Your task to perform on an android device: add a contact Image 0: 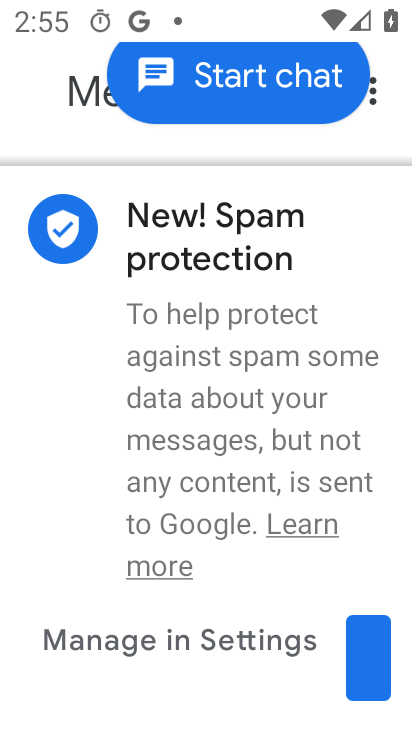
Step 0: press home button
Your task to perform on an android device: add a contact Image 1: 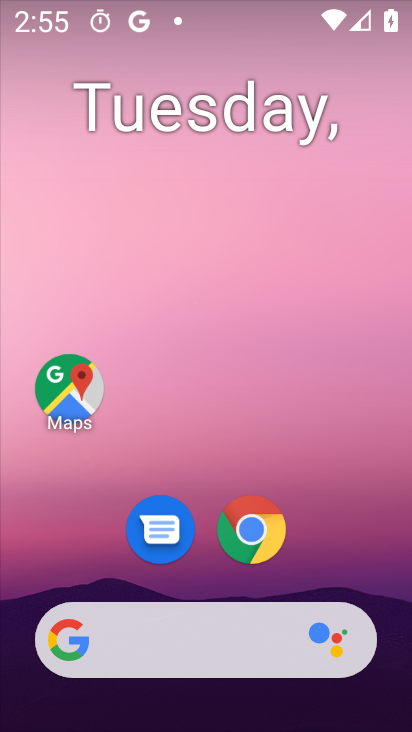
Step 1: drag from (129, 277) to (401, 277)
Your task to perform on an android device: add a contact Image 2: 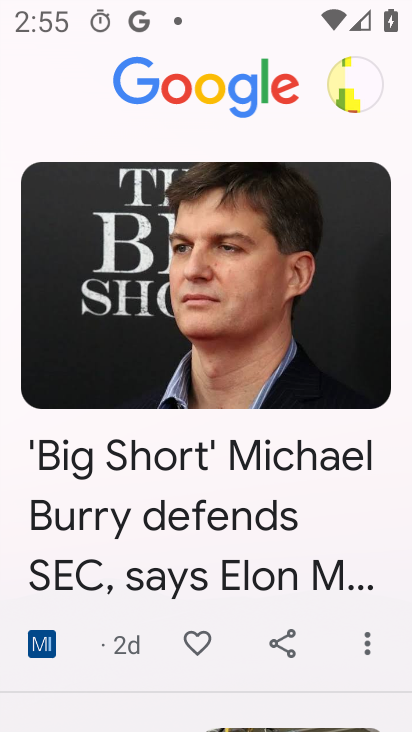
Step 2: press home button
Your task to perform on an android device: add a contact Image 3: 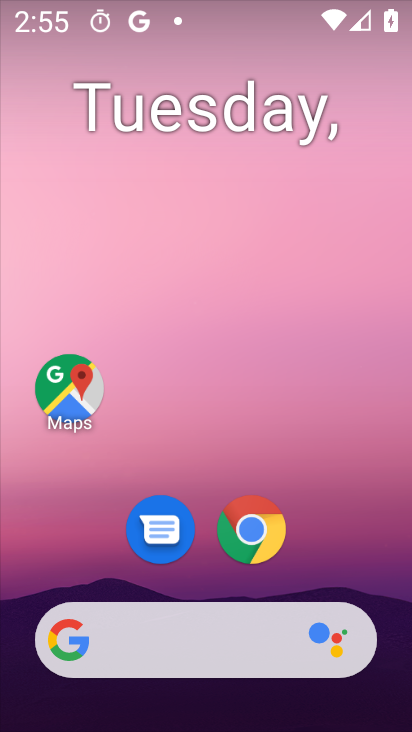
Step 3: click (371, 168)
Your task to perform on an android device: add a contact Image 4: 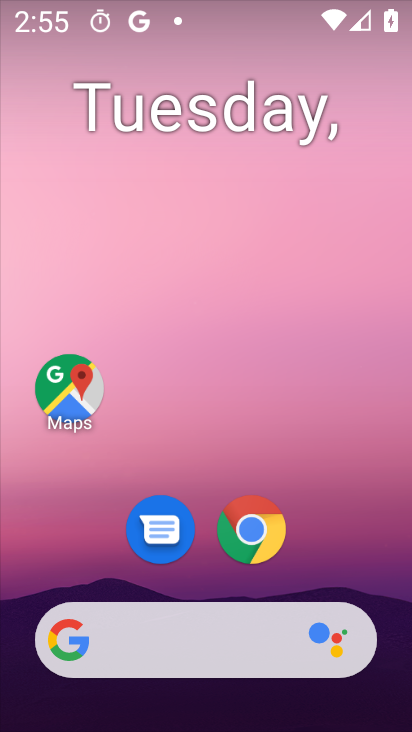
Step 4: drag from (353, 460) to (343, 206)
Your task to perform on an android device: add a contact Image 5: 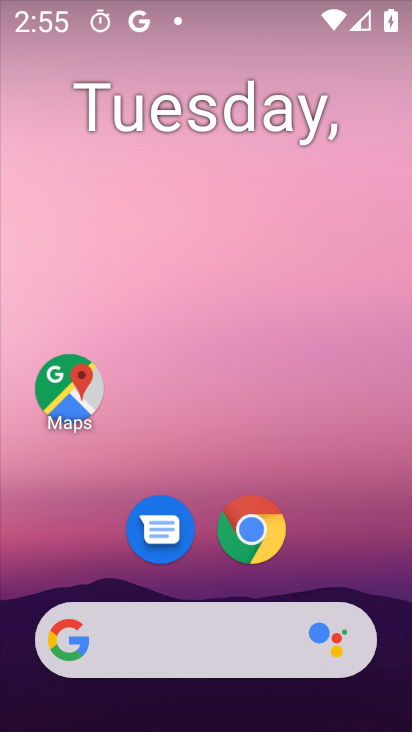
Step 5: drag from (379, 570) to (323, 76)
Your task to perform on an android device: add a contact Image 6: 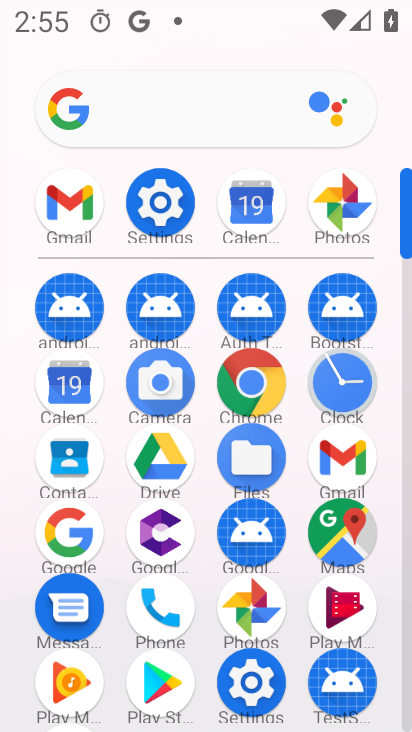
Step 6: drag from (198, 649) to (193, 291)
Your task to perform on an android device: add a contact Image 7: 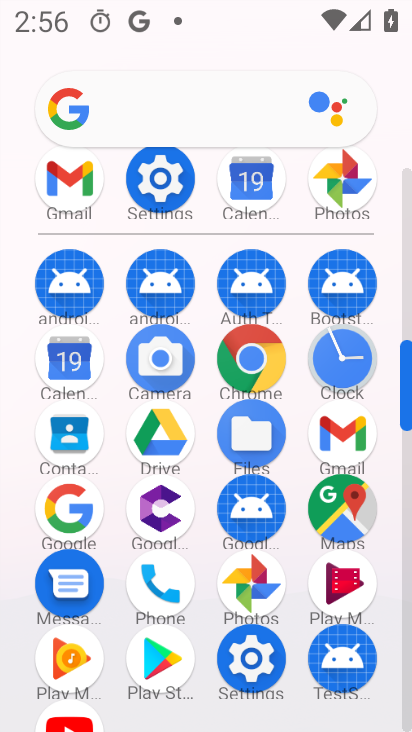
Step 7: click (61, 451)
Your task to perform on an android device: add a contact Image 8: 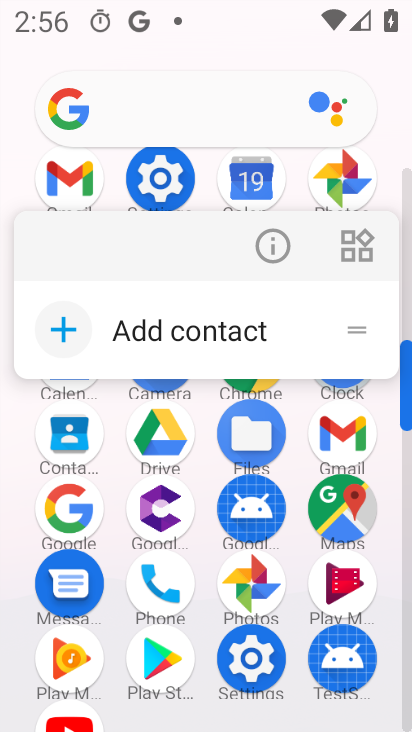
Step 8: click (60, 438)
Your task to perform on an android device: add a contact Image 9: 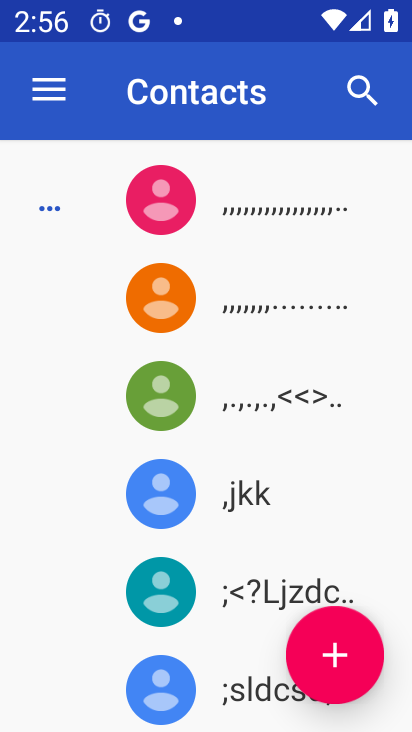
Step 9: click (314, 677)
Your task to perform on an android device: add a contact Image 10: 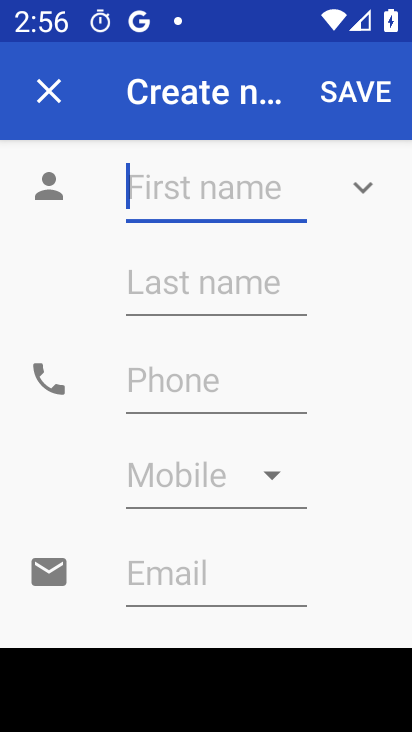
Step 10: type "fdfgdfdfgg"
Your task to perform on an android device: add a contact Image 11: 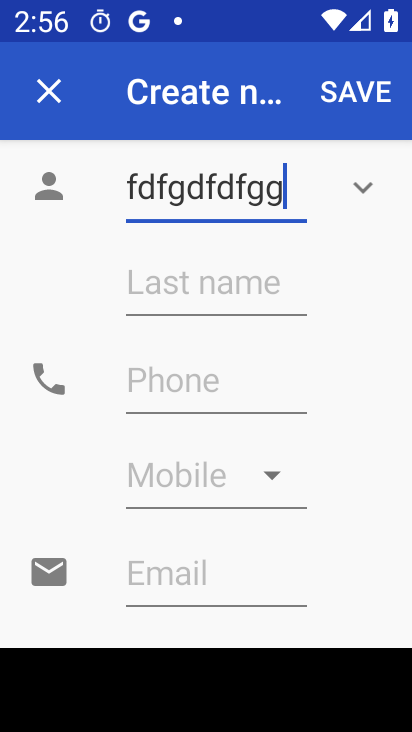
Step 11: click (202, 283)
Your task to perform on an android device: add a contact Image 12: 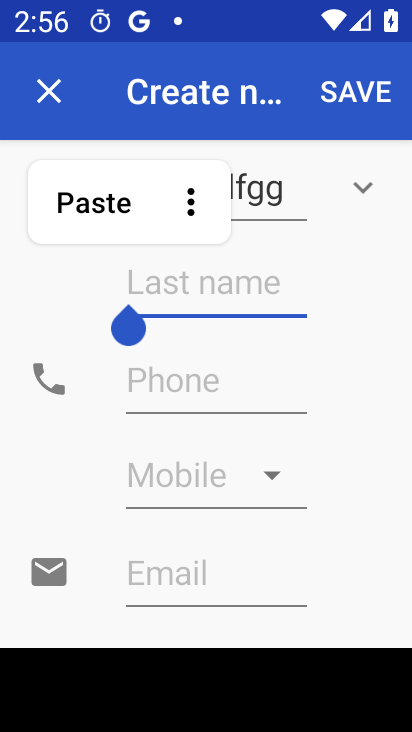
Step 12: type "dfhfhfgh"
Your task to perform on an android device: add a contact Image 13: 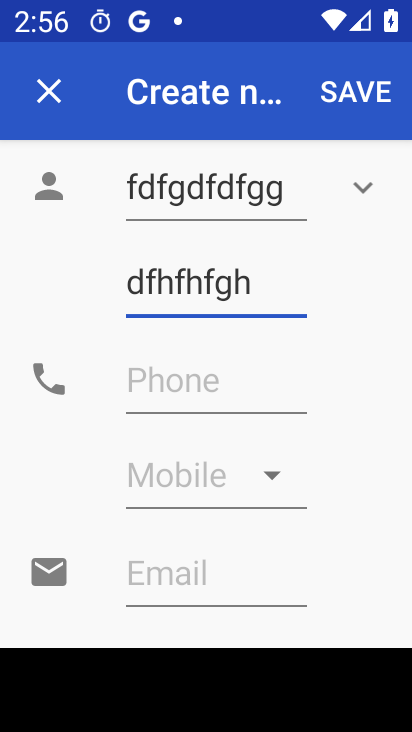
Step 13: click (181, 394)
Your task to perform on an android device: add a contact Image 14: 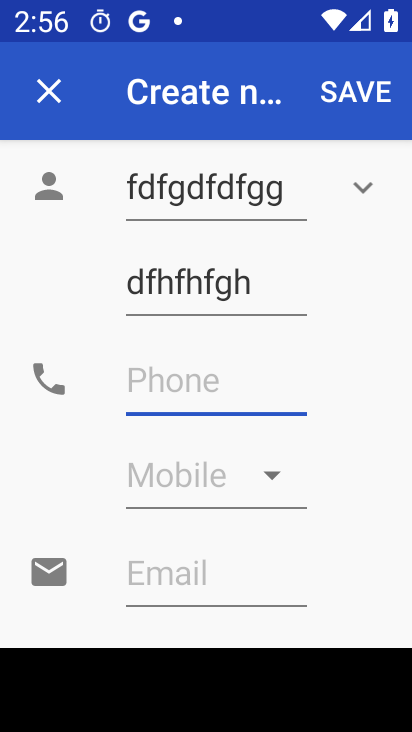
Step 14: type "454564644654564"
Your task to perform on an android device: add a contact Image 15: 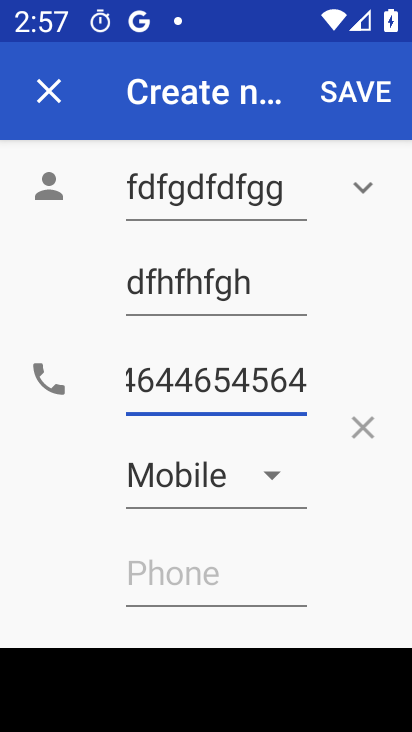
Step 15: click (374, 83)
Your task to perform on an android device: add a contact Image 16: 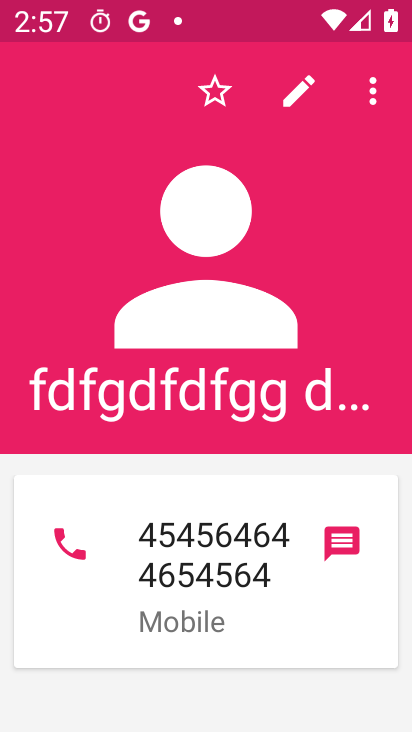
Step 16: task complete